Your task to perform on an android device: open app "Google News" (install if not already installed) Image 0: 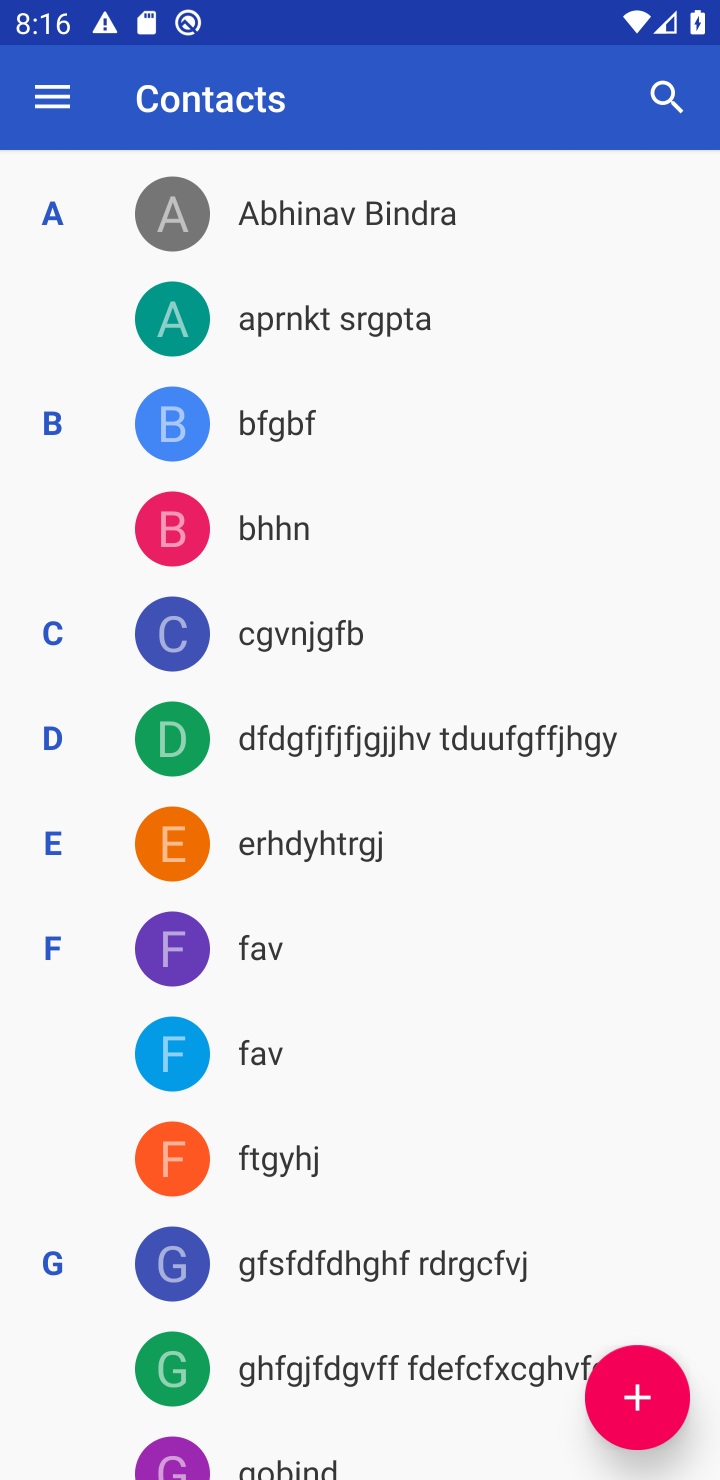
Step 0: press home button
Your task to perform on an android device: open app "Google News" (install if not already installed) Image 1: 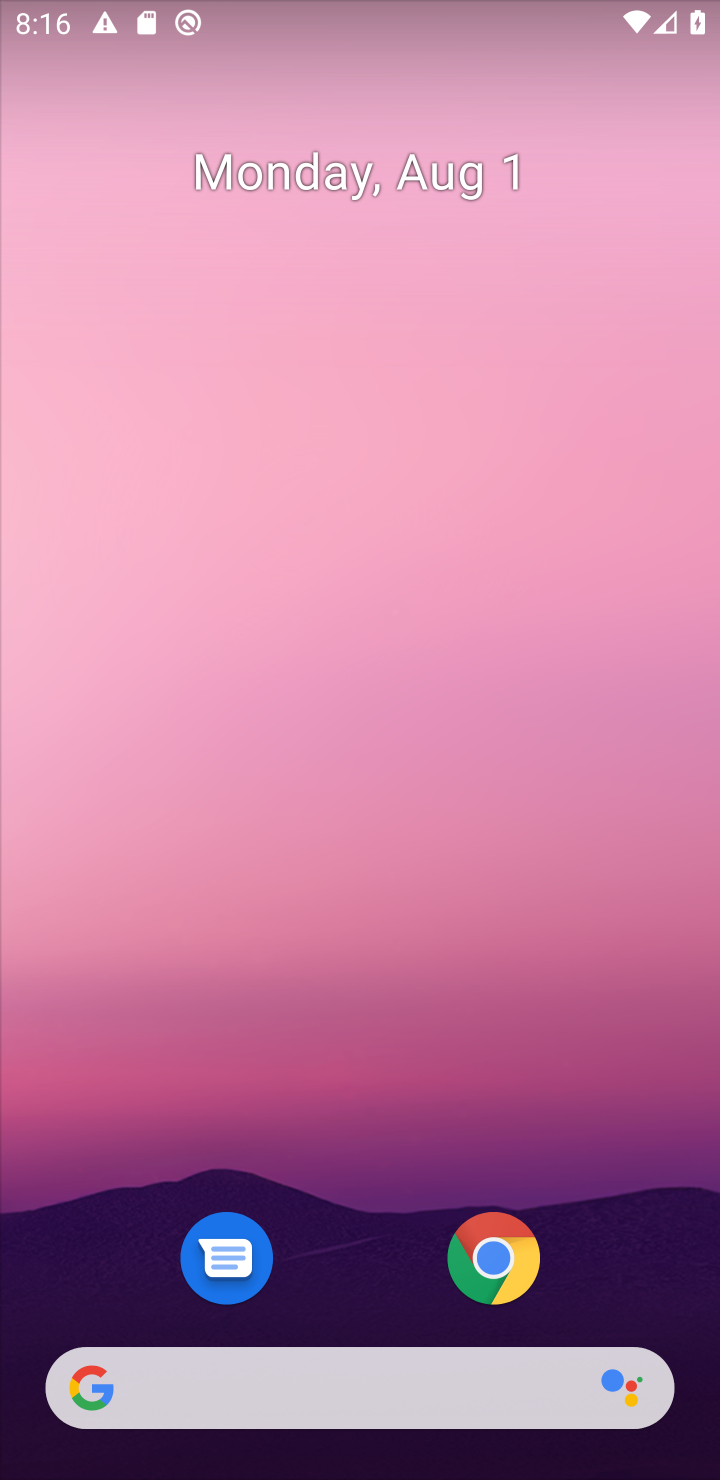
Step 1: drag from (352, 1265) to (431, 97)
Your task to perform on an android device: open app "Google News" (install if not already installed) Image 2: 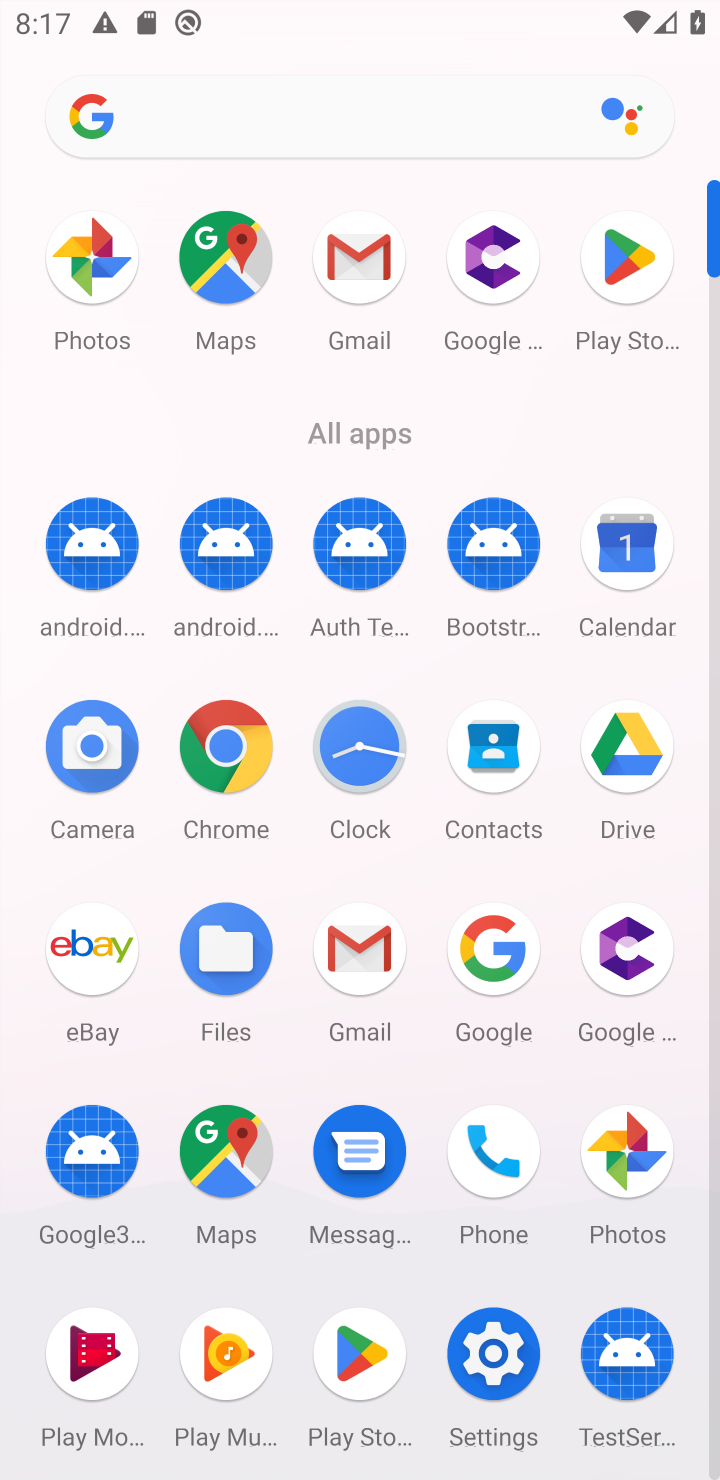
Step 2: click (350, 1360)
Your task to perform on an android device: open app "Google News" (install if not already installed) Image 3: 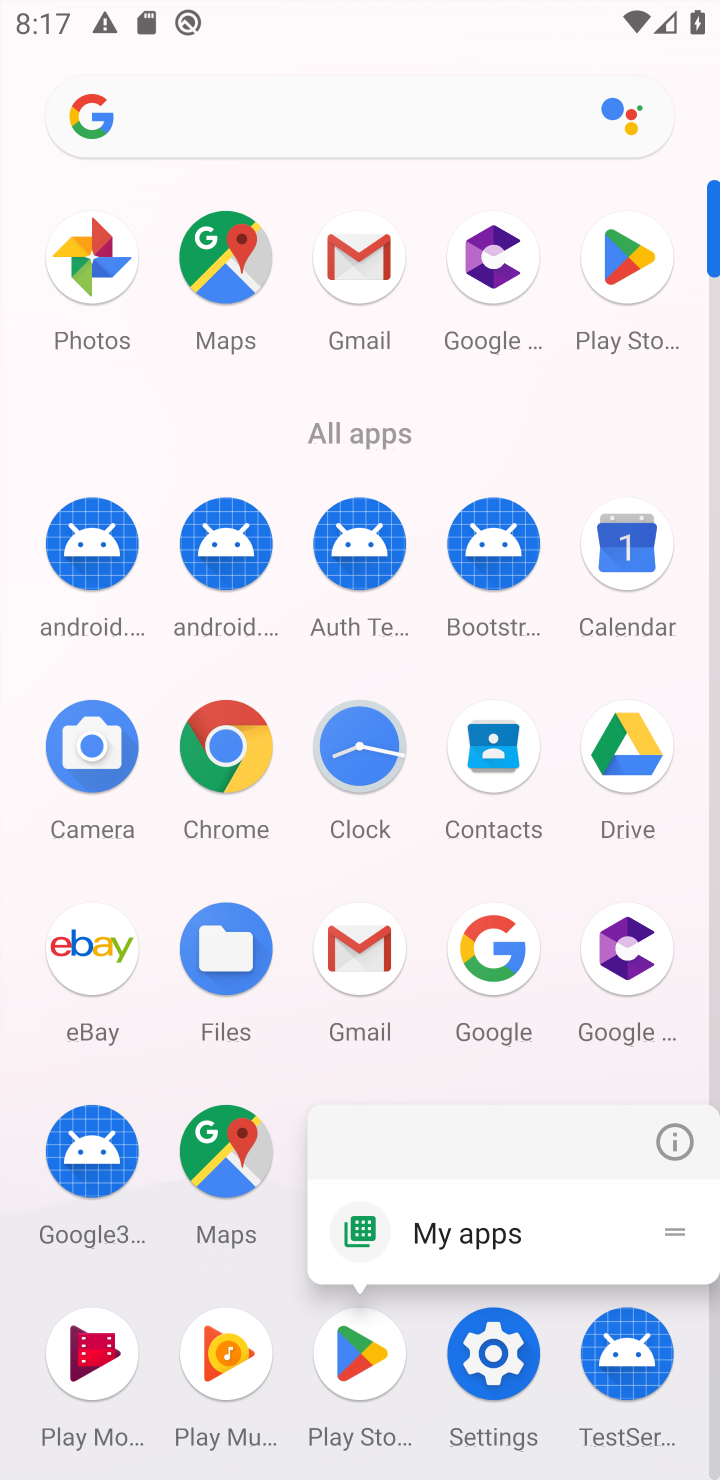
Step 3: click (364, 1328)
Your task to perform on an android device: open app "Google News" (install if not already installed) Image 4: 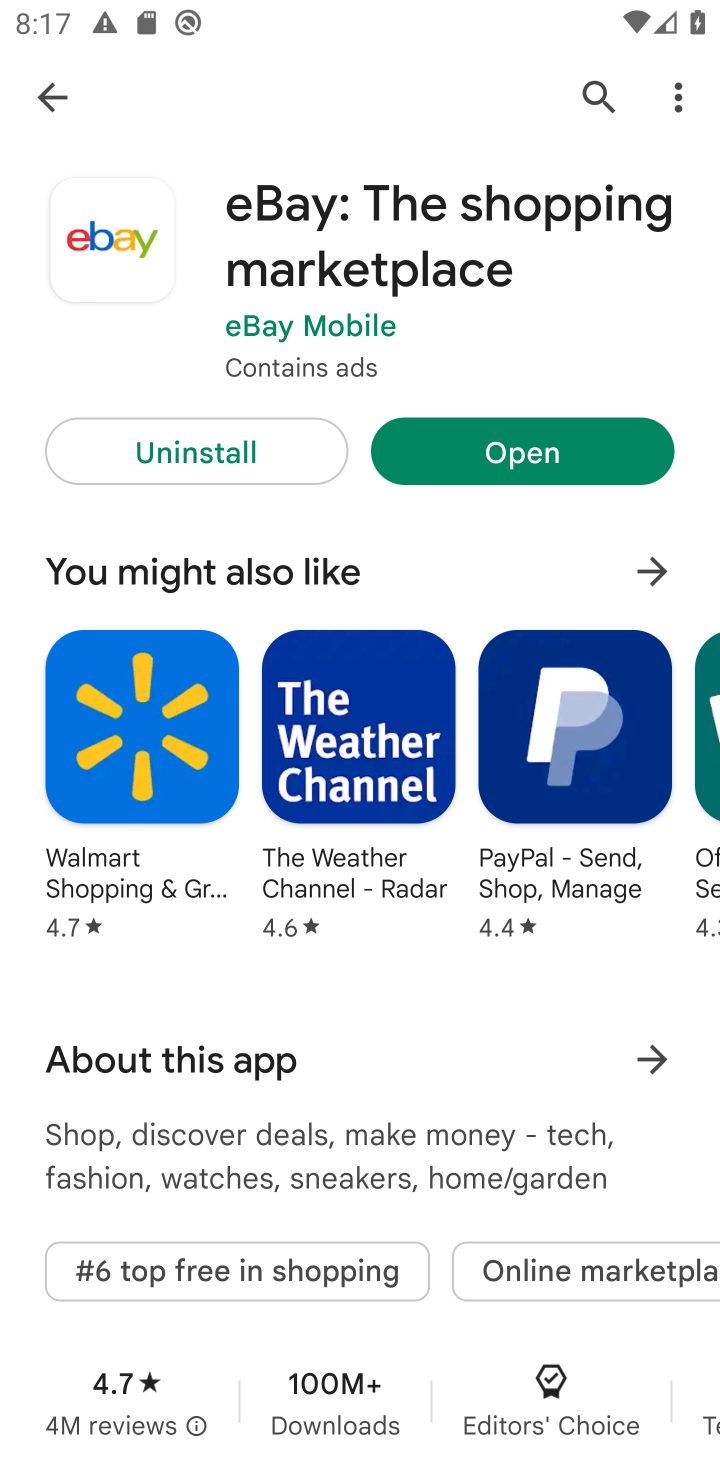
Step 4: click (58, 81)
Your task to perform on an android device: open app "Google News" (install if not already installed) Image 5: 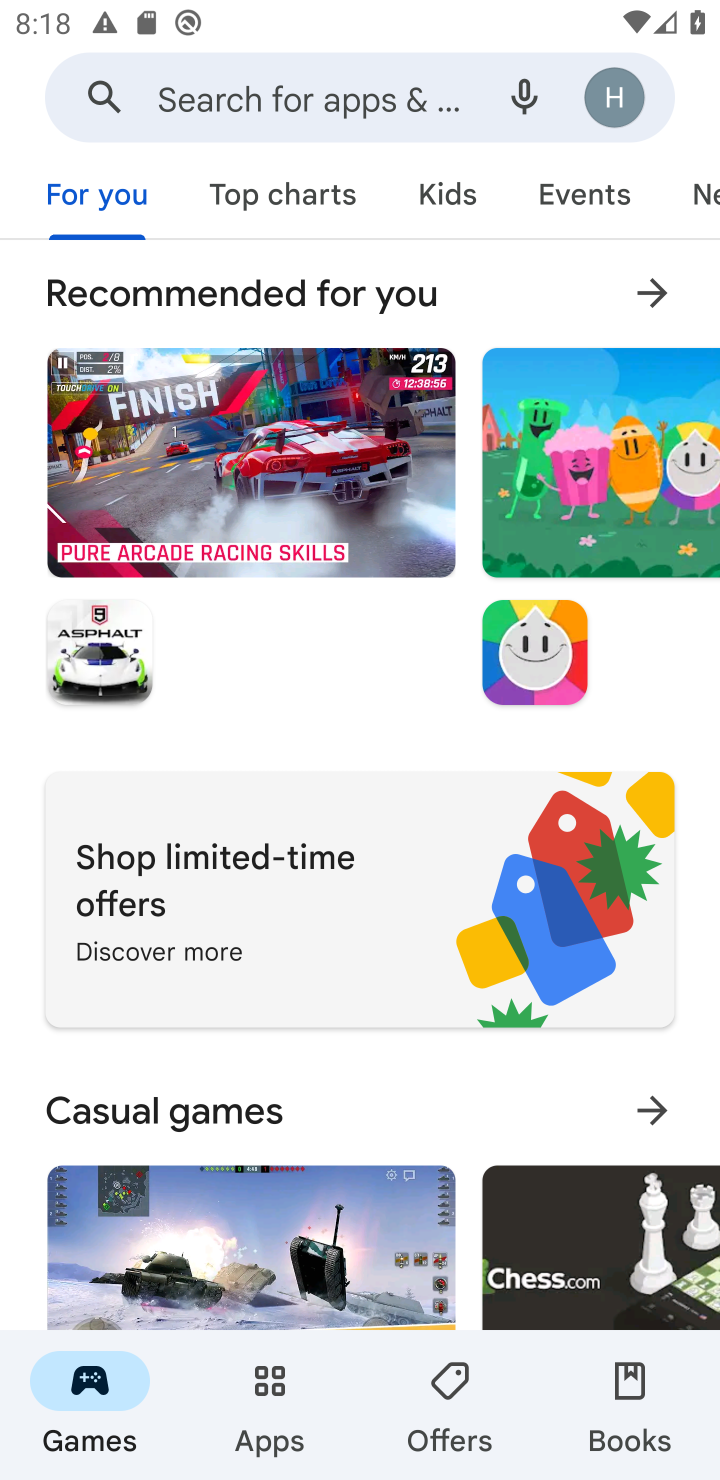
Step 5: click (224, 97)
Your task to perform on an android device: open app "Google News" (install if not already installed) Image 6: 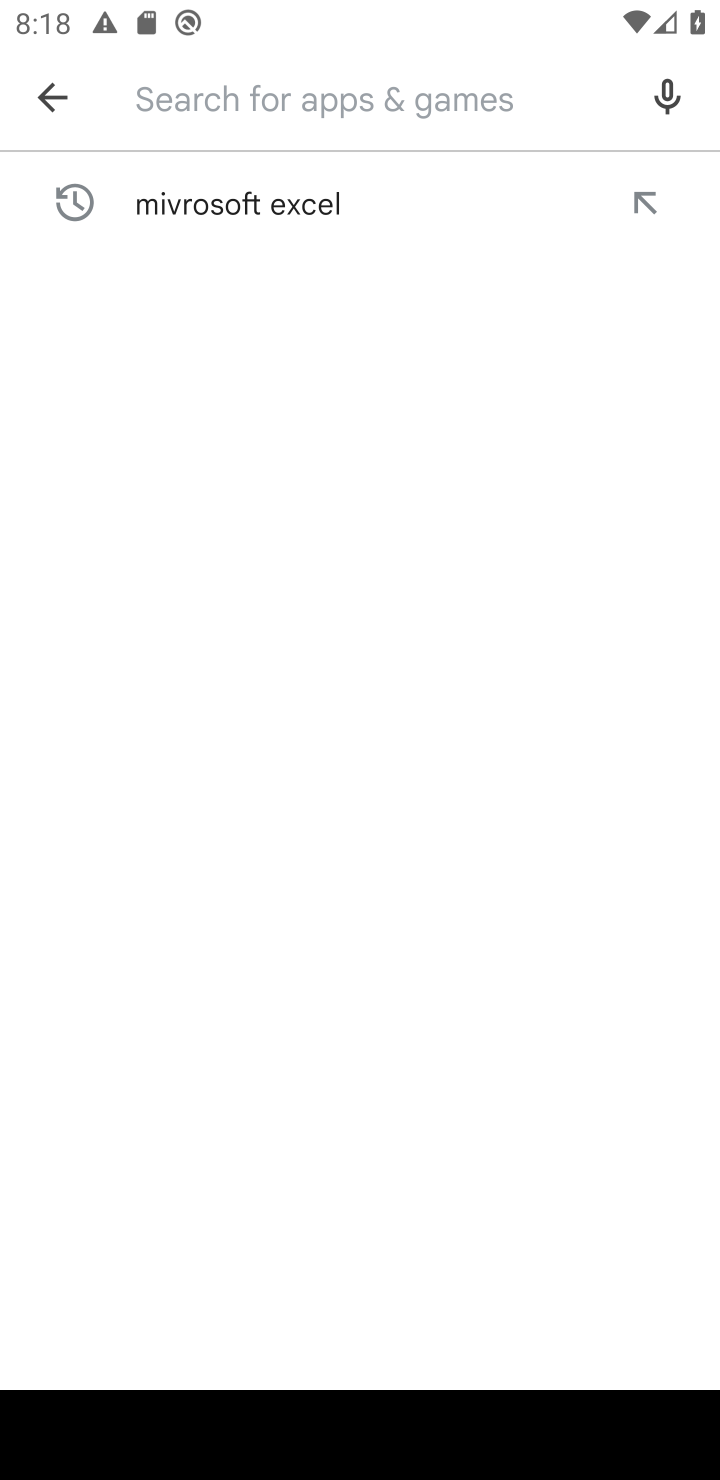
Step 6: type "Google News"
Your task to perform on an android device: open app "Google News" (install if not already installed) Image 7: 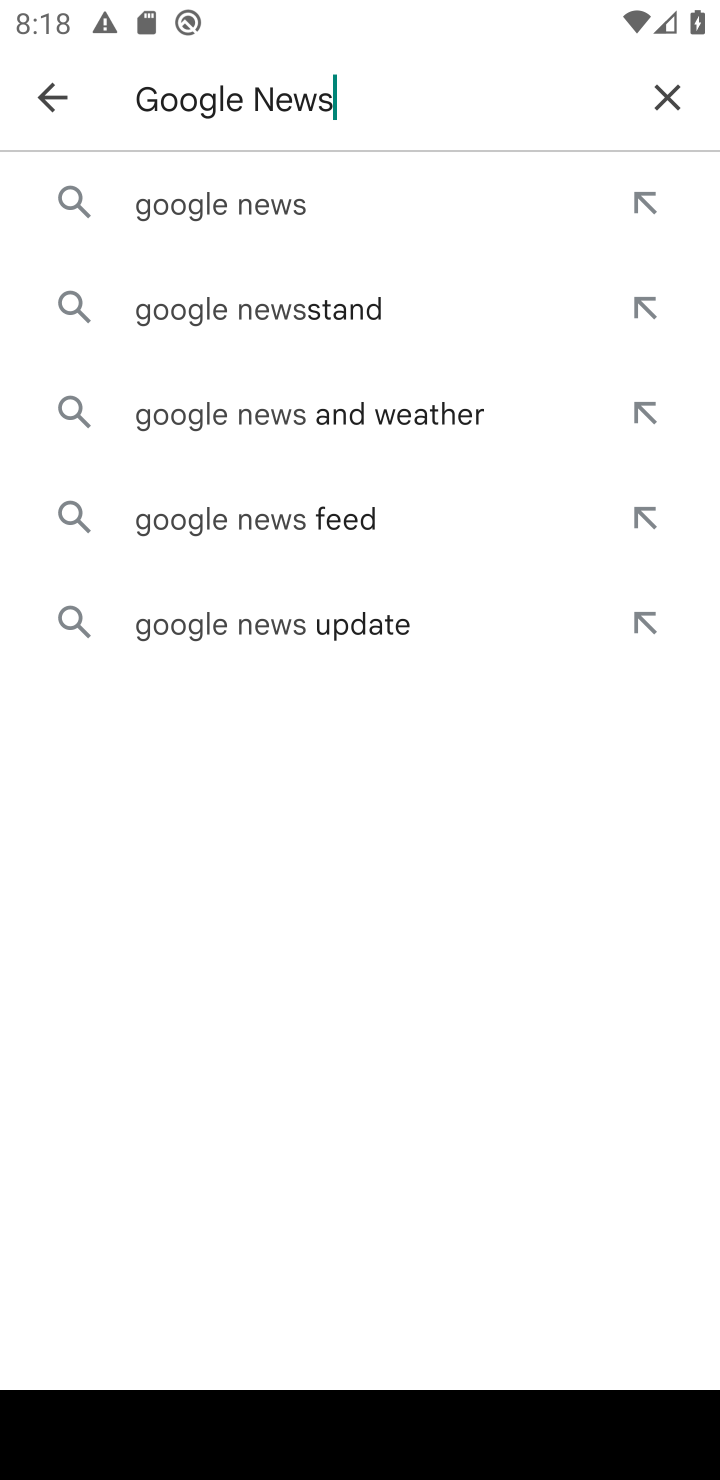
Step 7: click (254, 197)
Your task to perform on an android device: open app "Google News" (install if not already installed) Image 8: 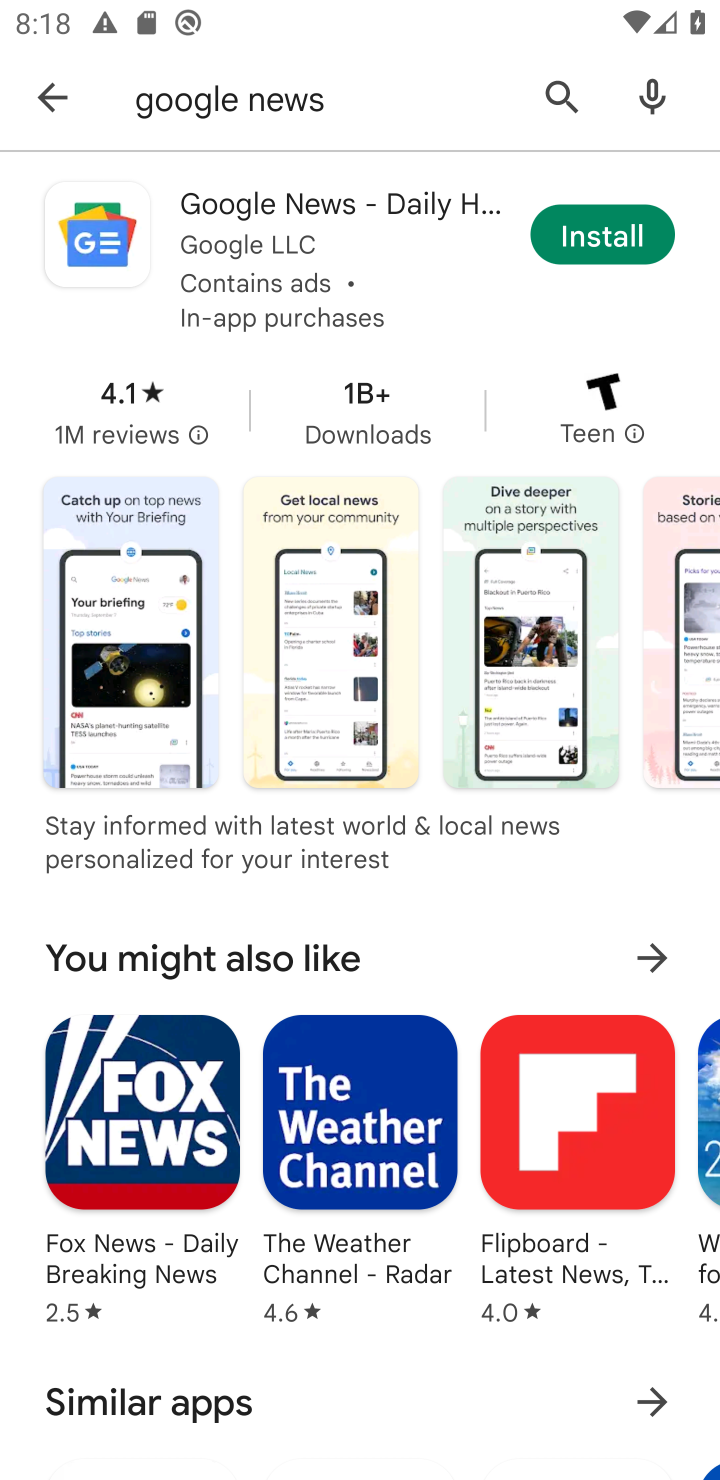
Step 8: click (641, 223)
Your task to perform on an android device: open app "Google News" (install if not already installed) Image 9: 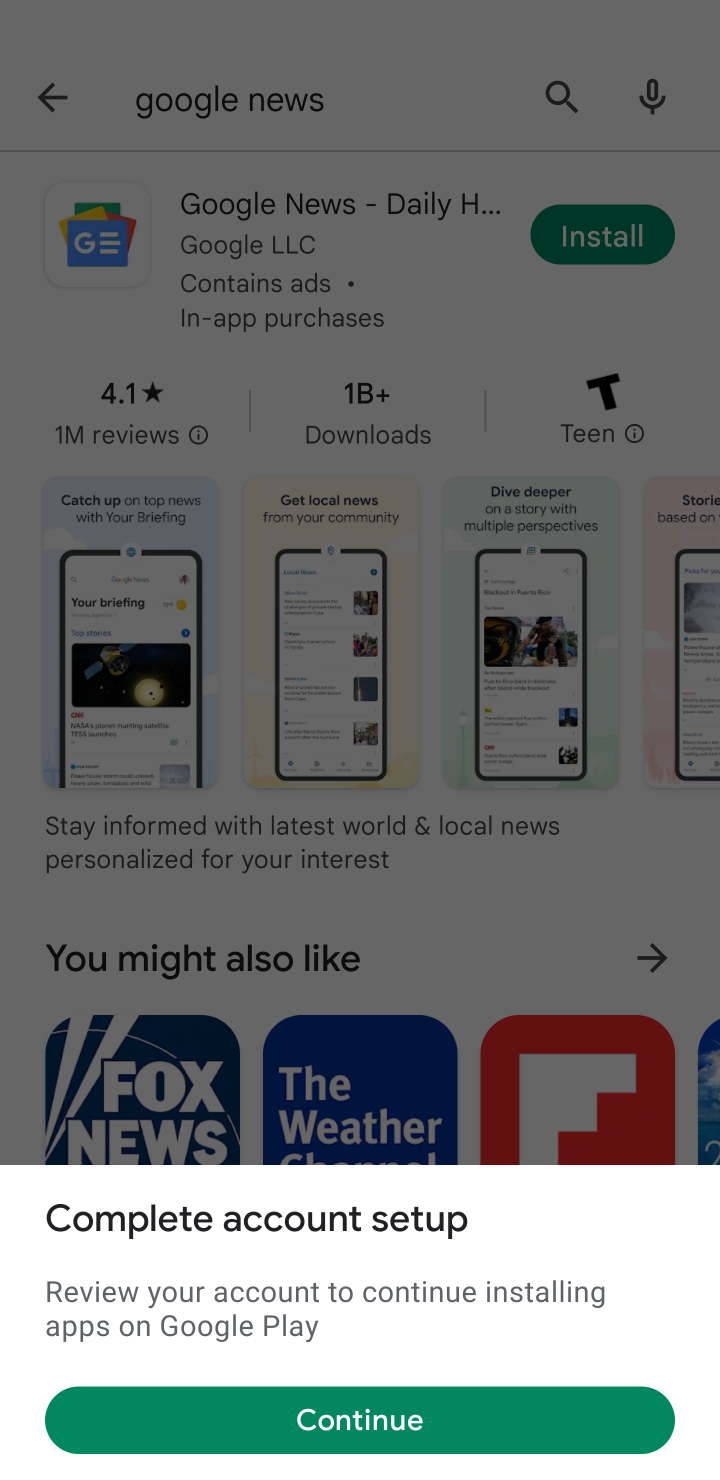
Step 9: click (427, 1429)
Your task to perform on an android device: open app "Google News" (install if not already installed) Image 10: 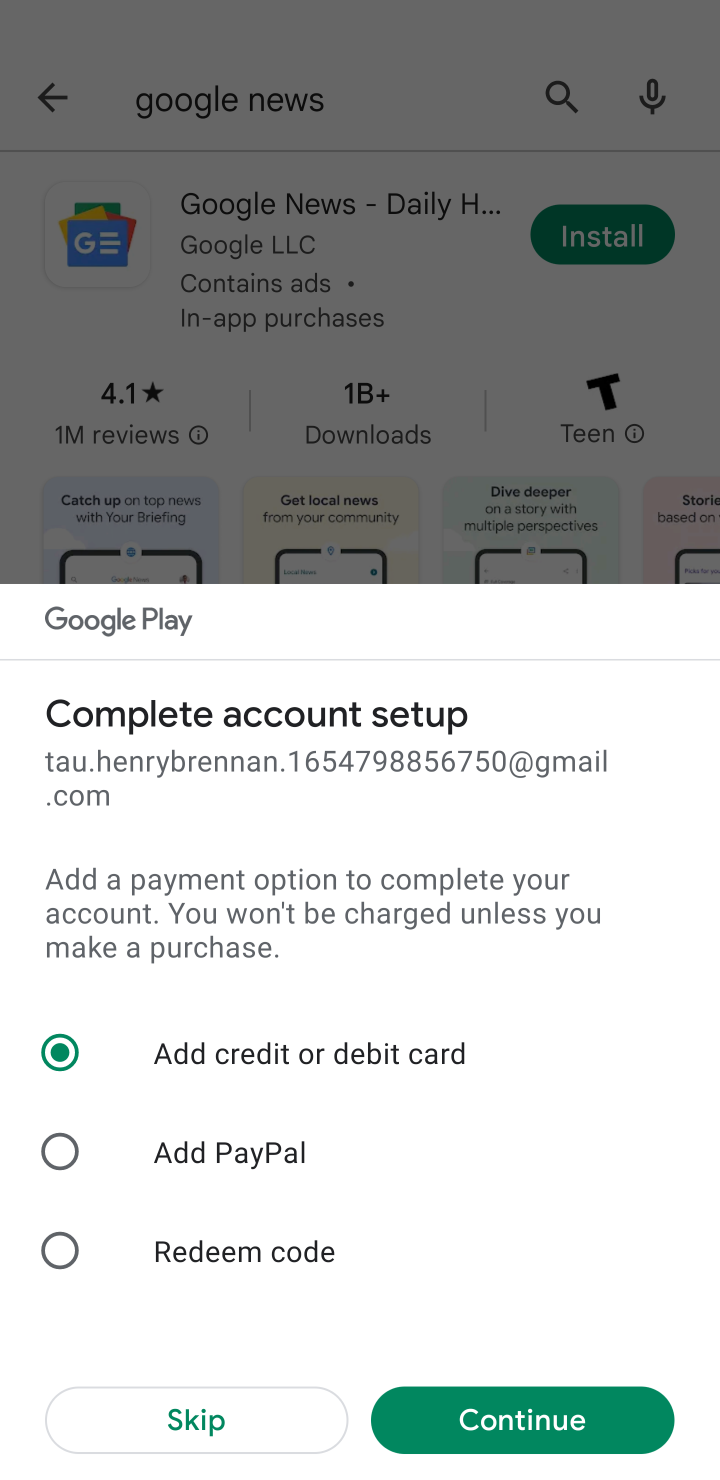
Step 10: click (266, 1437)
Your task to perform on an android device: open app "Google News" (install if not already installed) Image 11: 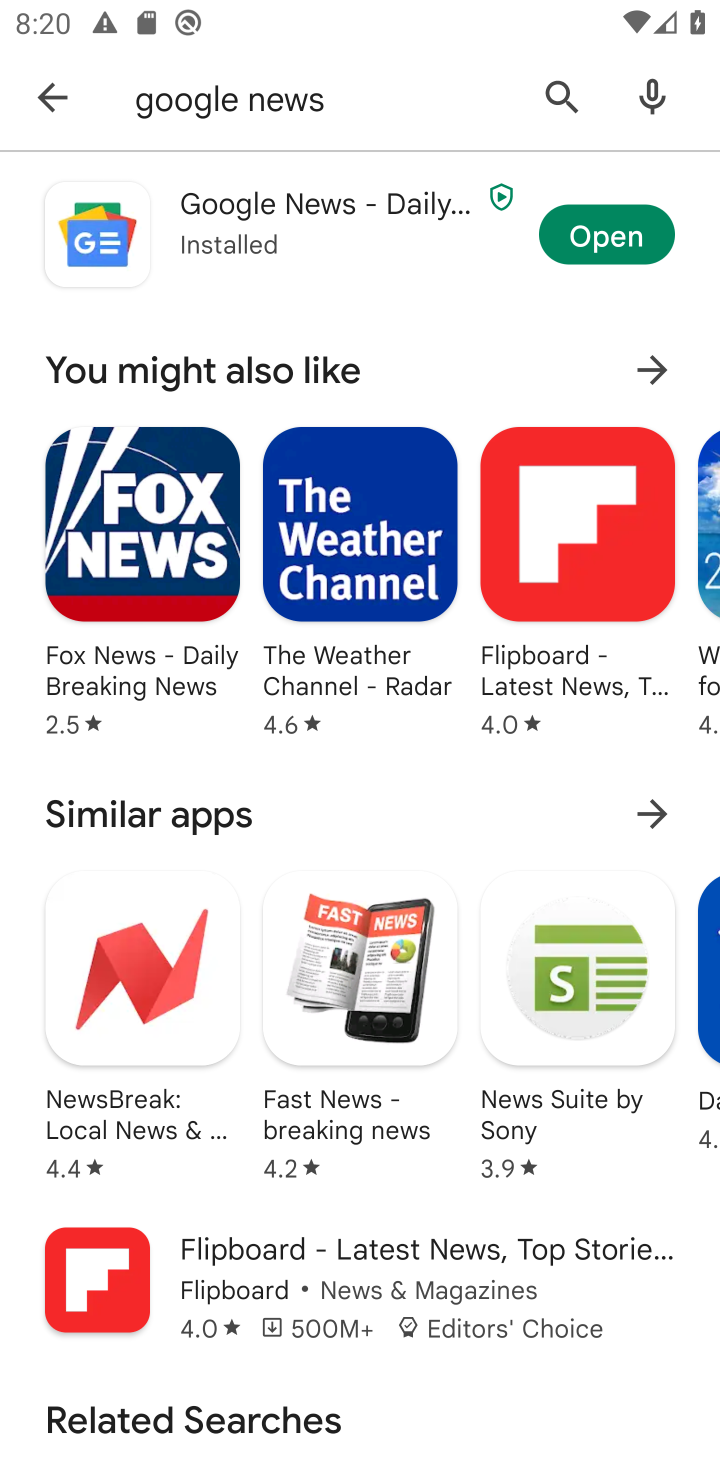
Step 11: click (654, 219)
Your task to perform on an android device: open app "Google News" (install if not already installed) Image 12: 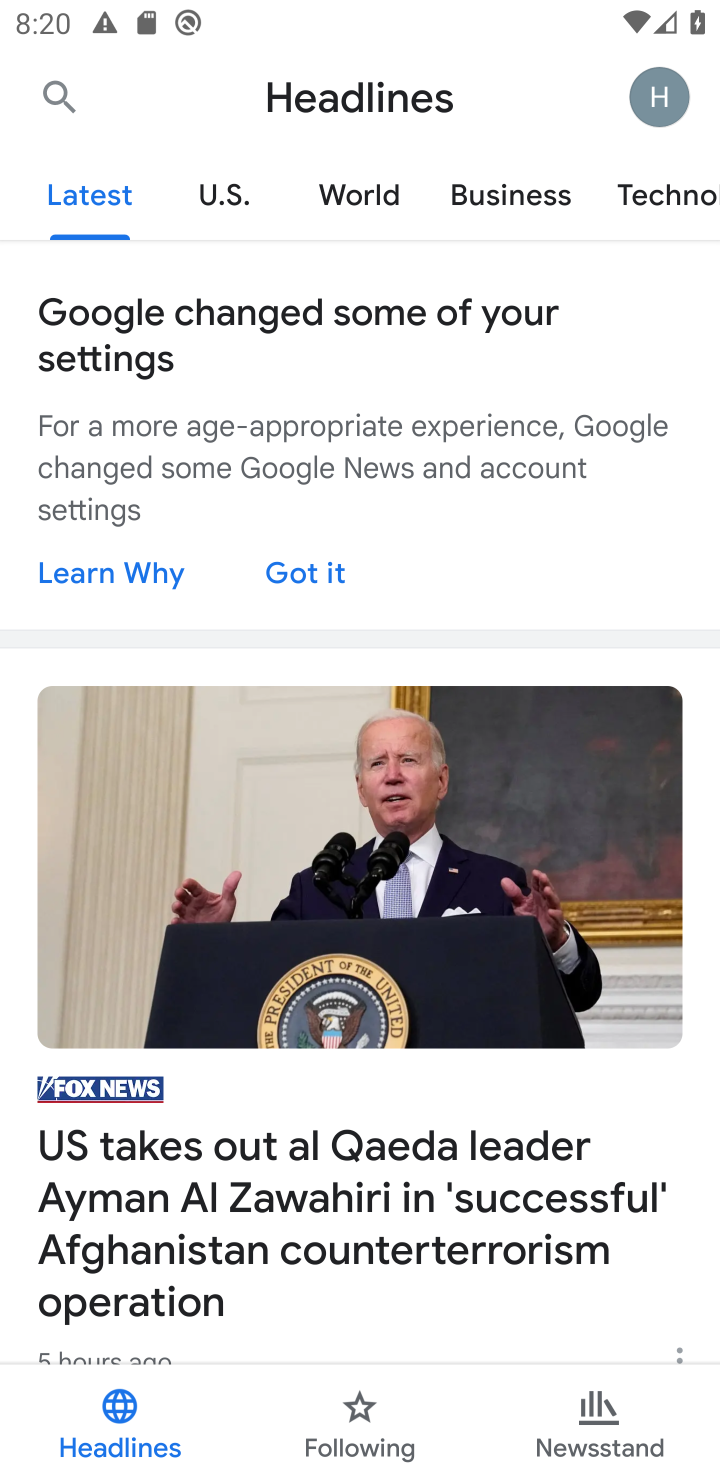
Step 12: task complete